Your task to perform on an android device: Go to internet settings Image 0: 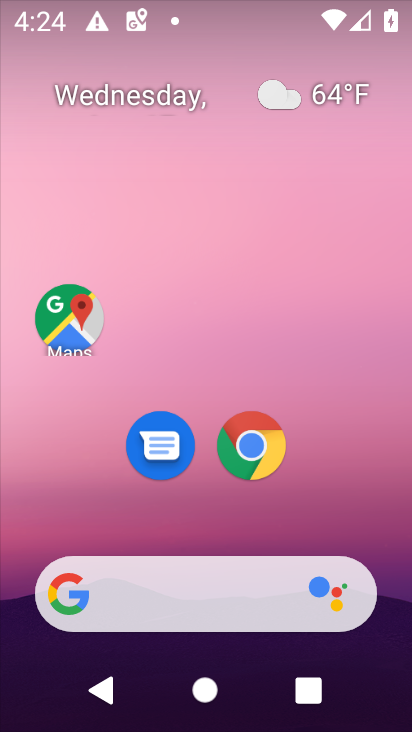
Step 0: drag from (333, 441) to (310, 3)
Your task to perform on an android device: Go to internet settings Image 1: 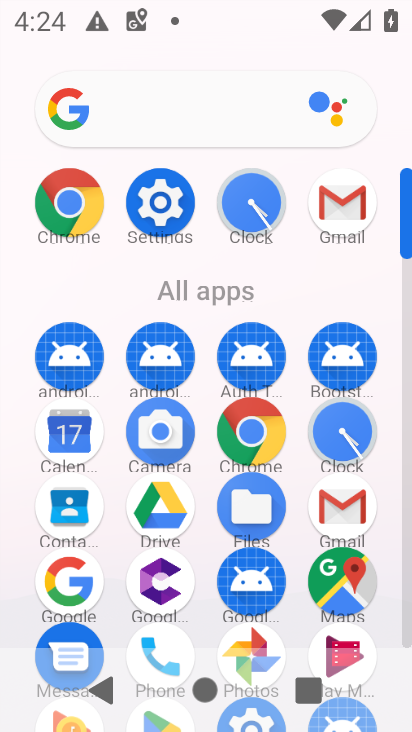
Step 1: drag from (295, 626) to (312, 209)
Your task to perform on an android device: Go to internet settings Image 2: 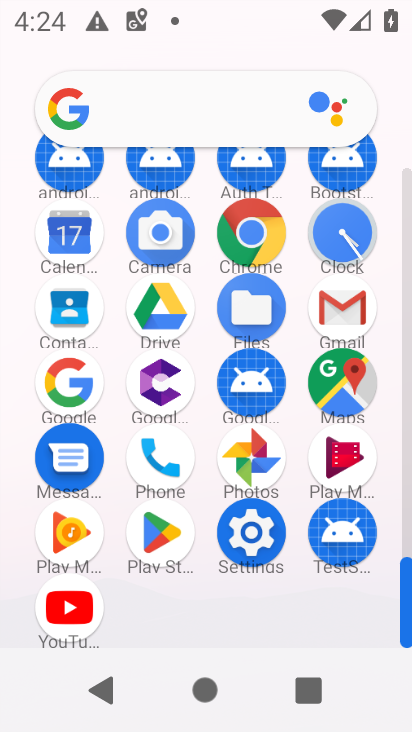
Step 2: click (244, 540)
Your task to perform on an android device: Go to internet settings Image 3: 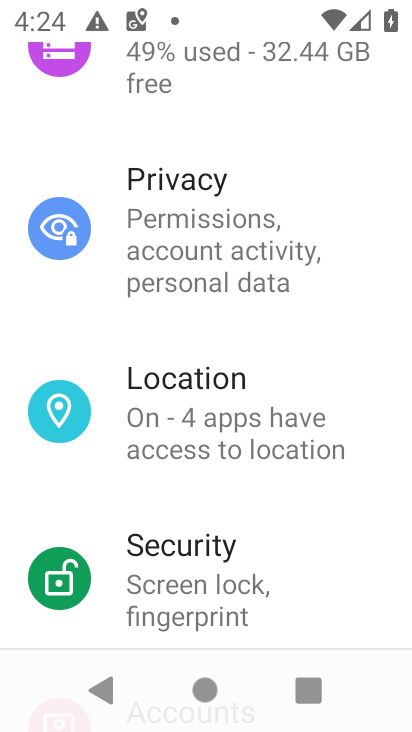
Step 3: drag from (311, 168) to (255, 603)
Your task to perform on an android device: Go to internet settings Image 4: 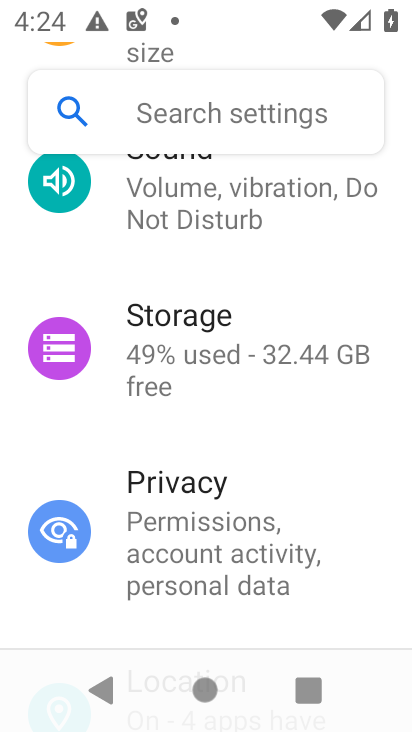
Step 4: drag from (265, 181) to (248, 642)
Your task to perform on an android device: Go to internet settings Image 5: 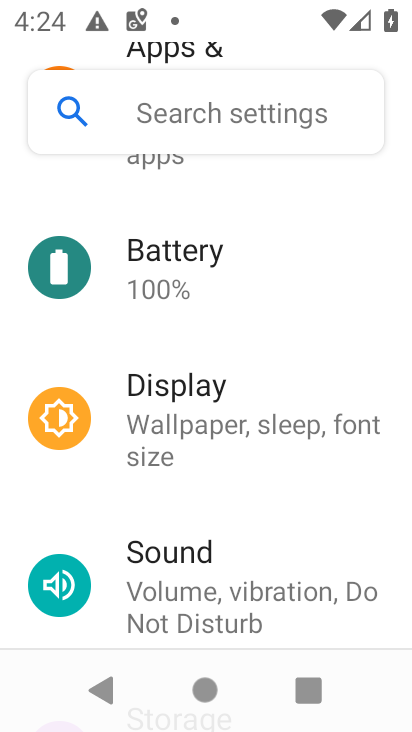
Step 5: drag from (284, 274) to (277, 727)
Your task to perform on an android device: Go to internet settings Image 6: 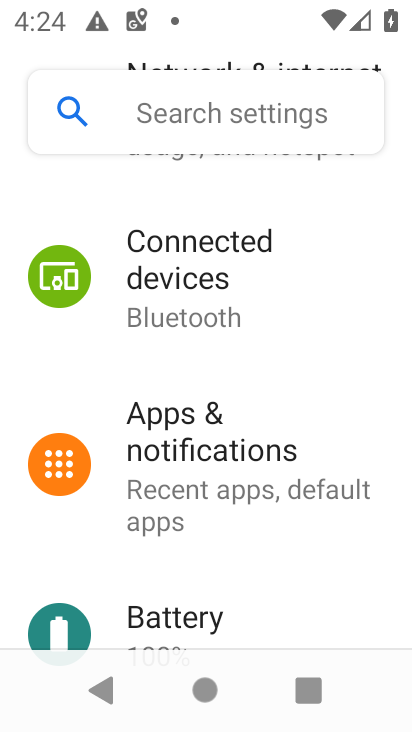
Step 6: drag from (311, 219) to (272, 652)
Your task to perform on an android device: Go to internet settings Image 7: 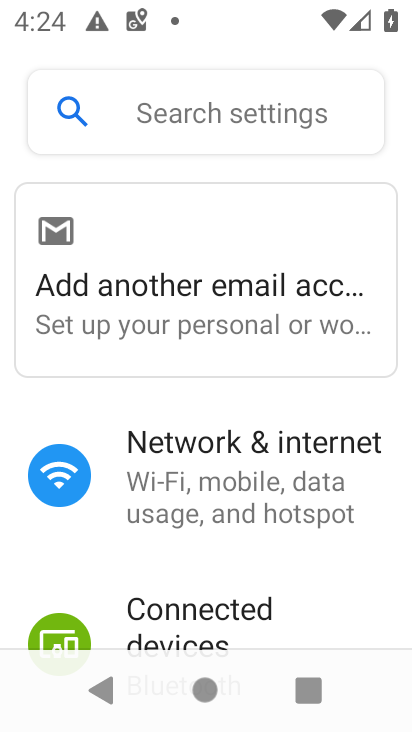
Step 7: click (253, 481)
Your task to perform on an android device: Go to internet settings Image 8: 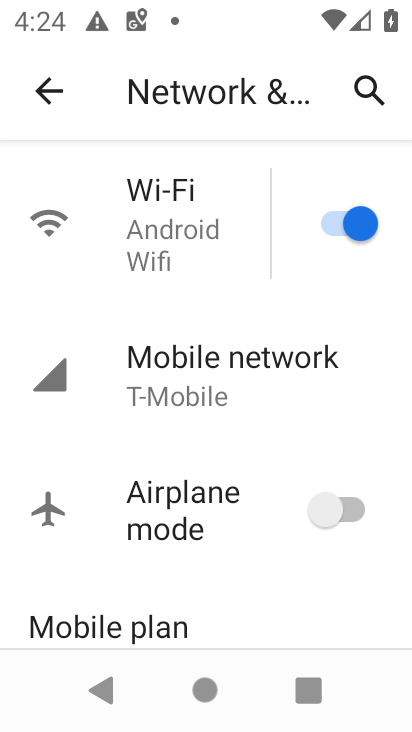
Step 8: drag from (278, 586) to (281, 167)
Your task to perform on an android device: Go to internet settings Image 9: 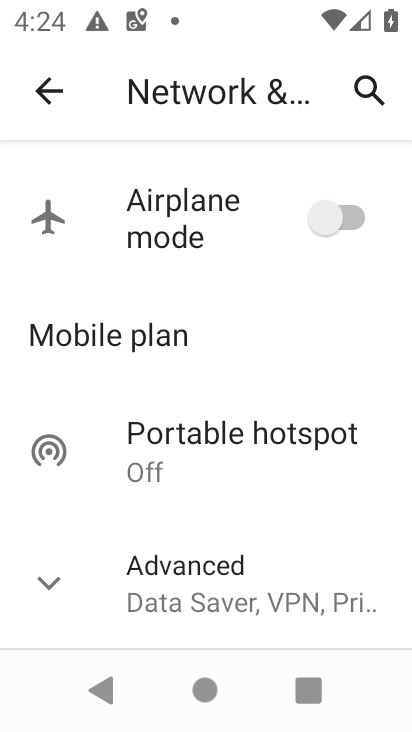
Step 9: click (215, 564)
Your task to perform on an android device: Go to internet settings Image 10: 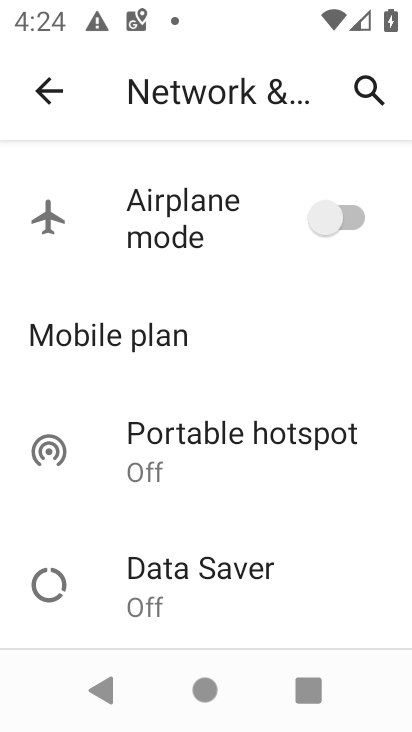
Step 10: task complete